Your task to perform on an android device: Open accessibility settings Image 0: 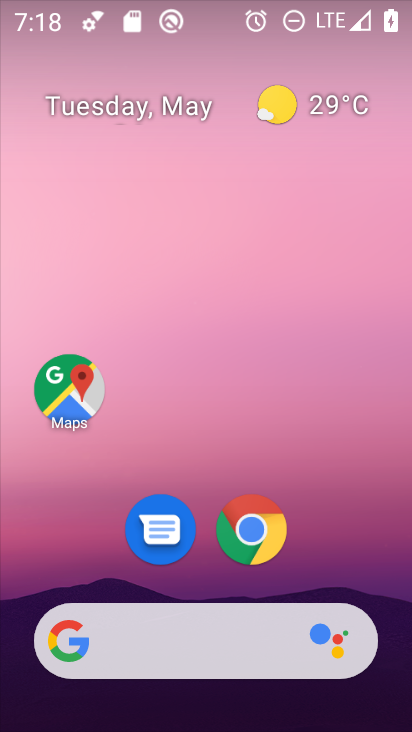
Step 0: drag from (397, 609) to (181, 6)
Your task to perform on an android device: Open accessibility settings Image 1: 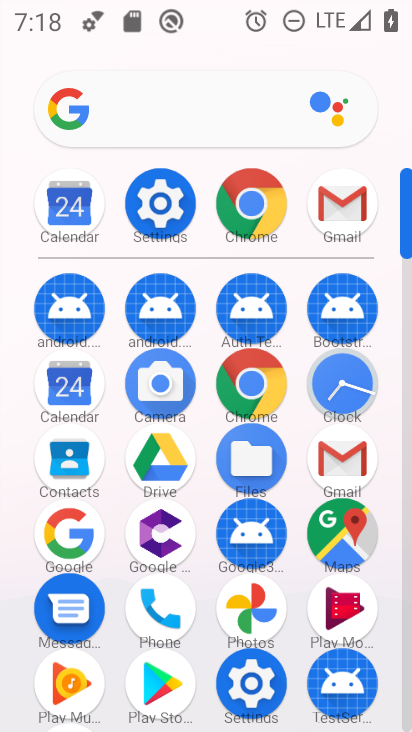
Step 1: click (183, 201)
Your task to perform on an android device: Open accessibility settings Image 2: 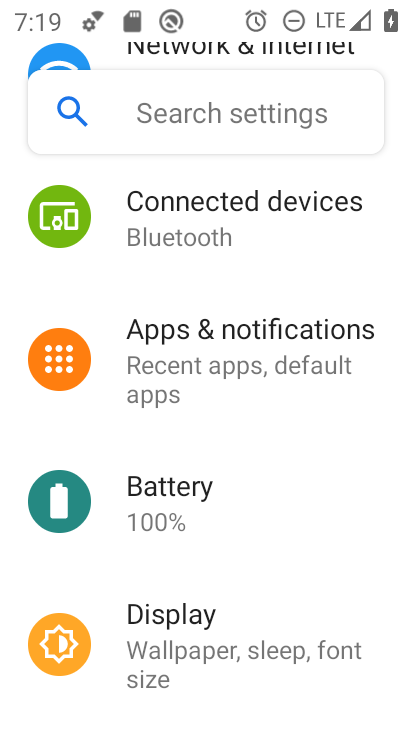
Step 2: drag from (195, 639) to (213, 192)
Your task to perform on an android device: Open accessibility settings Image 3: 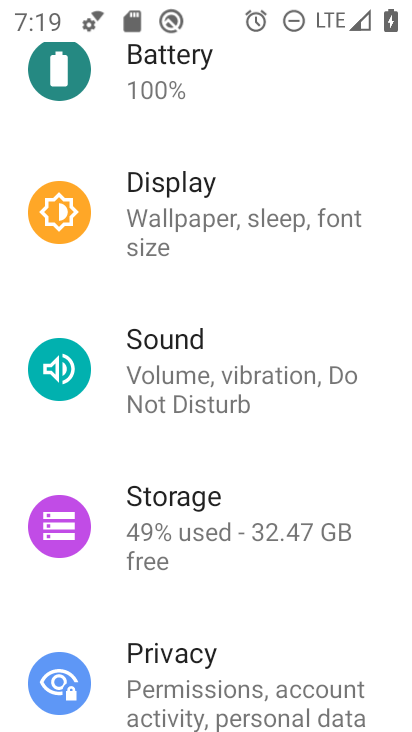
Step 3: drag from (195, 574) to (203, 100)
Your task to perform on an android device: Open accessibility settings Image 4: 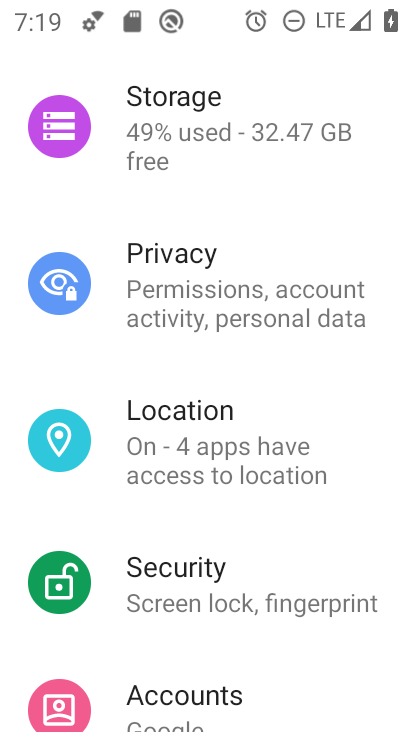
Step 4: drag from (198, 596) to (175, 112)
Your task to perform on an android device: Open accessibility settings Image 5: 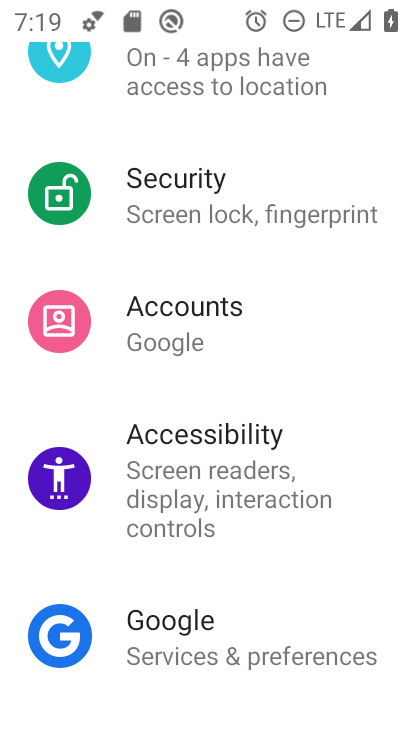
Step 5: click (200, 474)
Your task to perform on an android device: Open accessibility settings Image 6: 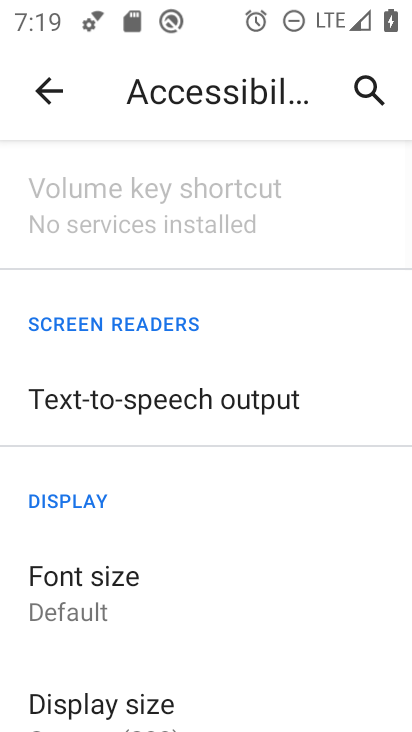
Step 6: task complete